Your task to perform on an android device: delete the emails in spam in the gmail app Image 0: 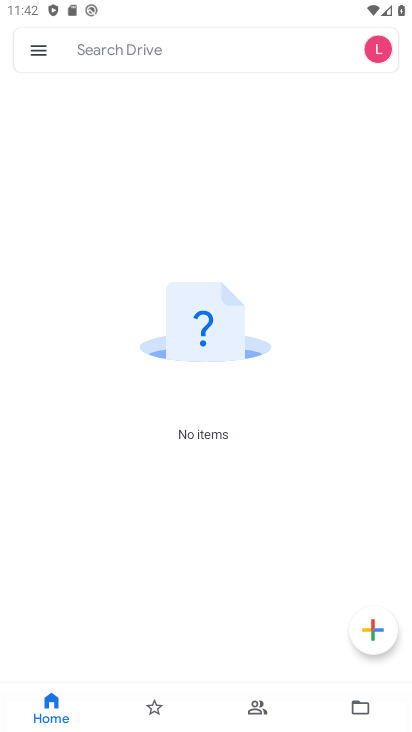
Step 0: press home button
Your task to perform on an android device: delete the emails in spam in the gmail app Image 1: 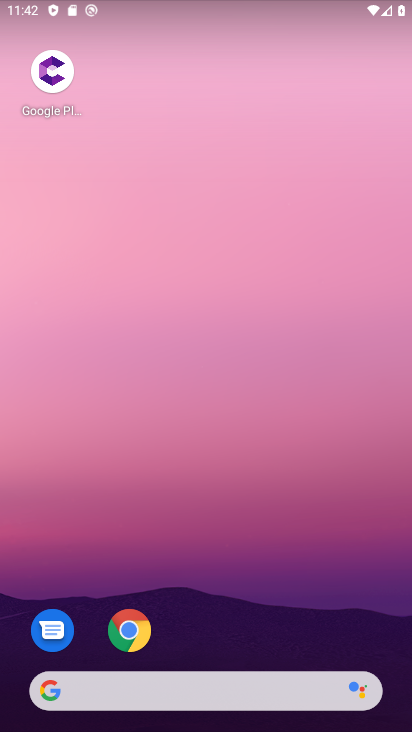
Step 1: drag from (223, 684) to (254, 33)
Your task to perform on an android device: delete the emails in spam in the gmail app Image 2: 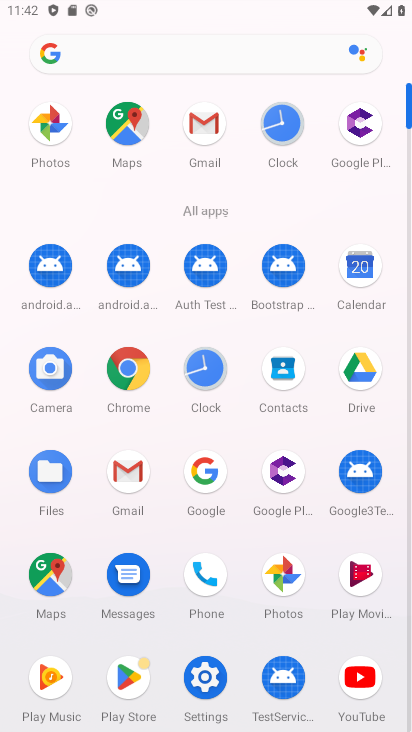
Step 2: click (121, 476)
Your task to perform on an android device: delete the emails in spam in the gmail app Image 3: 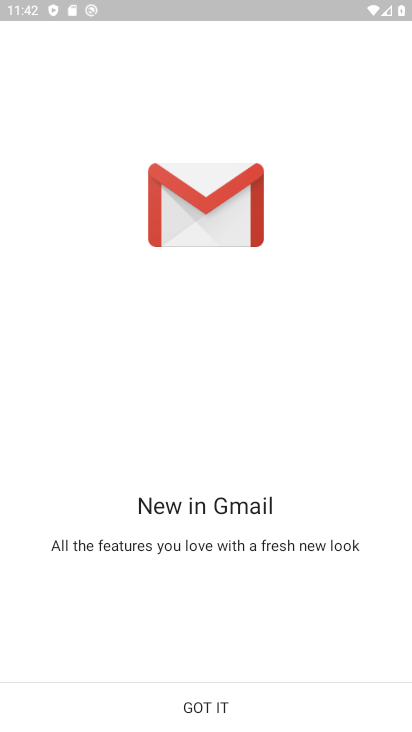
Step 3: click (202, 694)
Your task to perform on an android device: delete the emails in spam in the gmail app Image 4: 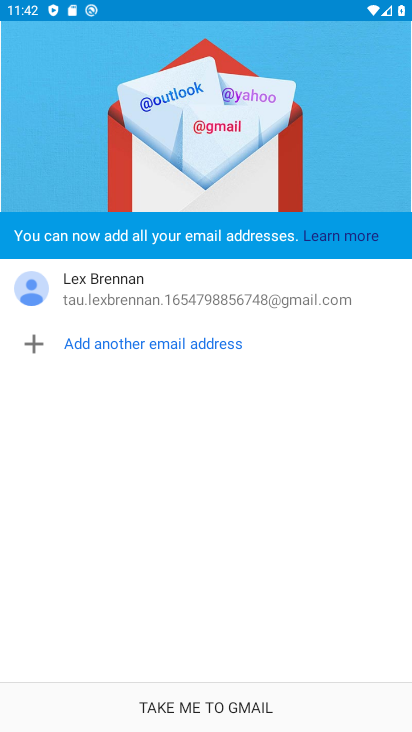
Step 4: click (221, 703)
Your task to perform on an android device: delete the emails in spam in the gmail app Image 5: 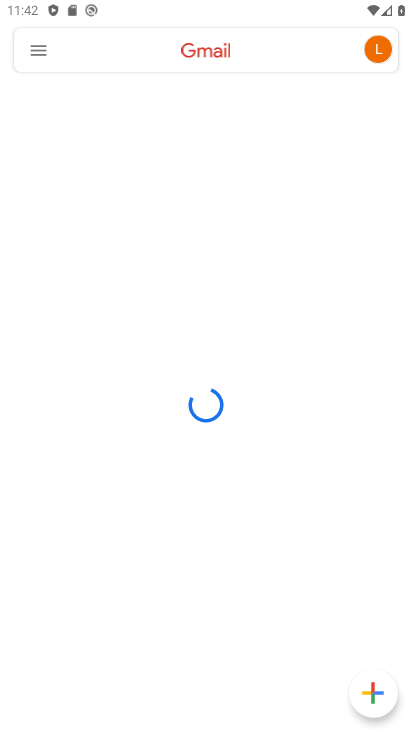
Step 5: click (42, 45)
Your task to perform on an android device: delete the emails in spam in the gmail app Image 6: 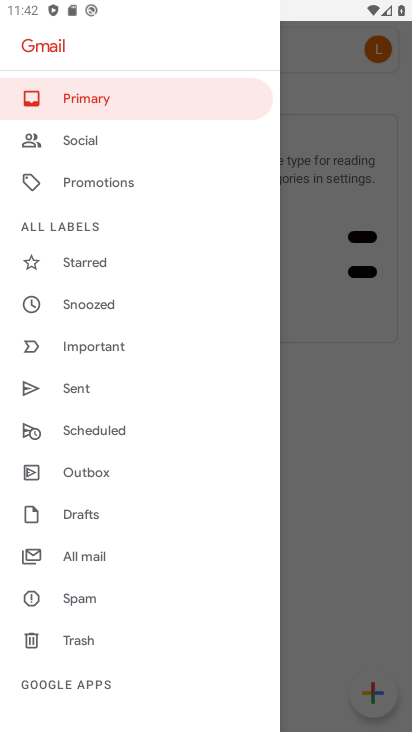
Step 6: click (82, 598)
Your task to perform on an android device: delete the emails in spam in the gmail app Image 7: 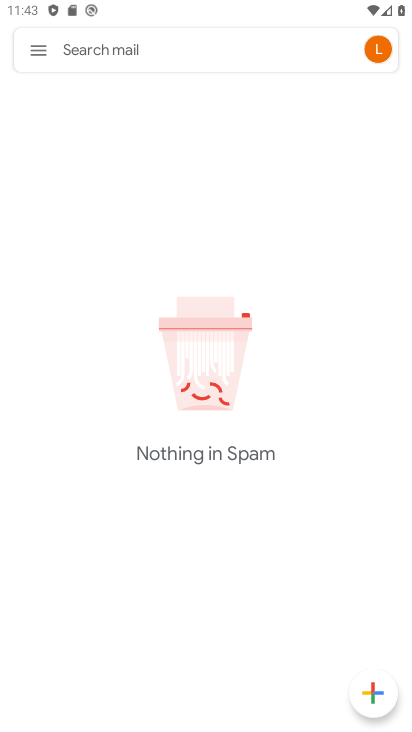
Step 7: task complete